Your task to perform on an android device: Open Google Chrome and click the shortcut for Amazon.com Image 0: 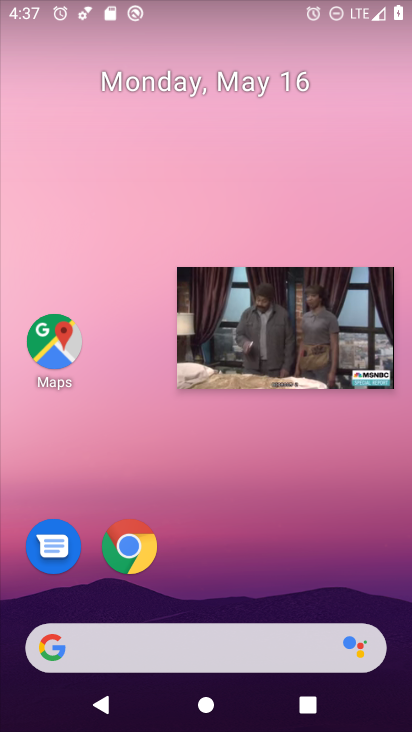
Step 0: drag from (288, 326) to (248, 717)
Your task to perform on an android device: Open Google Chrome and click the shortcut for Amazon.com Image 1: 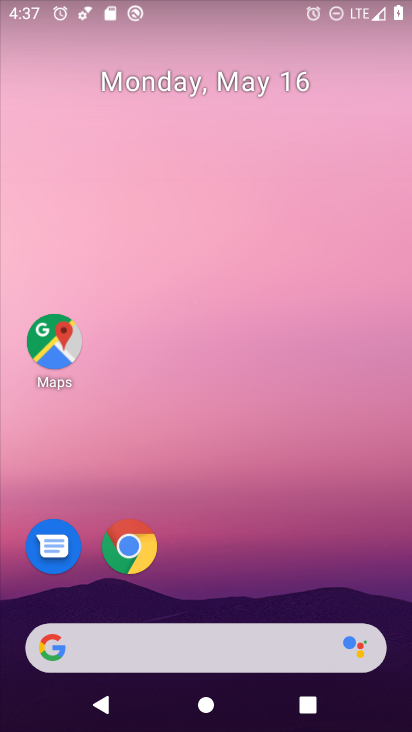
Step 1: drag from (312, 572) to (318, 131)
Your task to perform on an android device: Open Google Chrome and click the shortcut for Amazon.com Image 2: 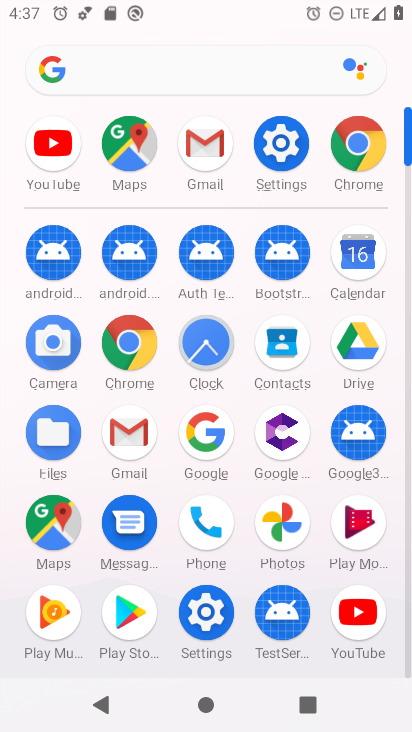
Step 2: click (130, 368)
Your task to perform on an android device: Open Google Chrome and click the shortcut for Amazon.com Image 3: 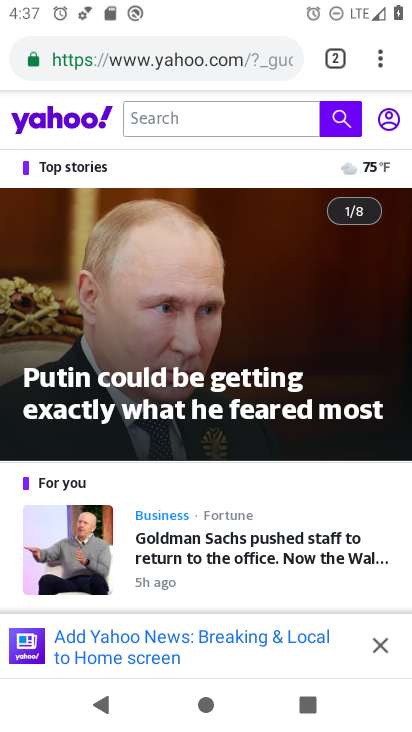
Step 3: press back button
Your task to perform on an android device: Open Google Chrome and click the shortcut for Amazon.com Image 4: 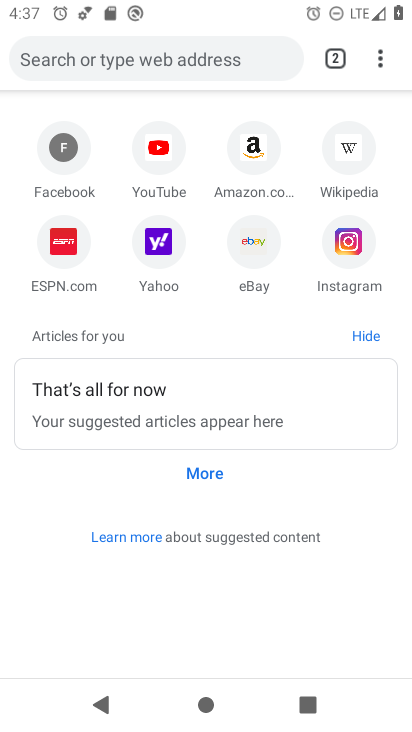
Step 4: click (254, 179)
Your task to perform on an android device: Open Google Chrome and click the shortcut for Amazon.com Image 5: 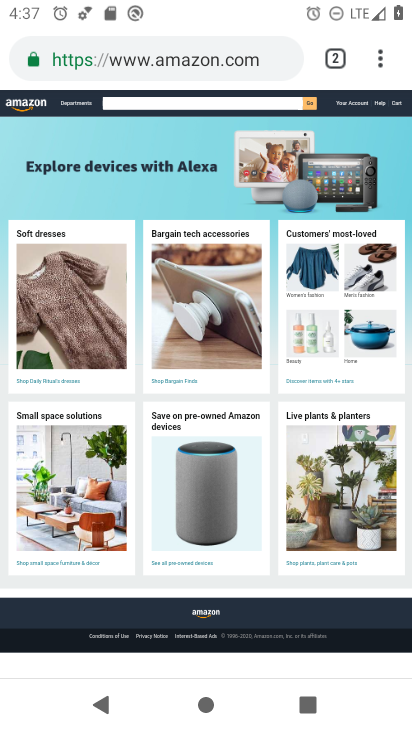
Step 5: task complete